Your task to perform on an android device: When is my next appointment? Image 0: 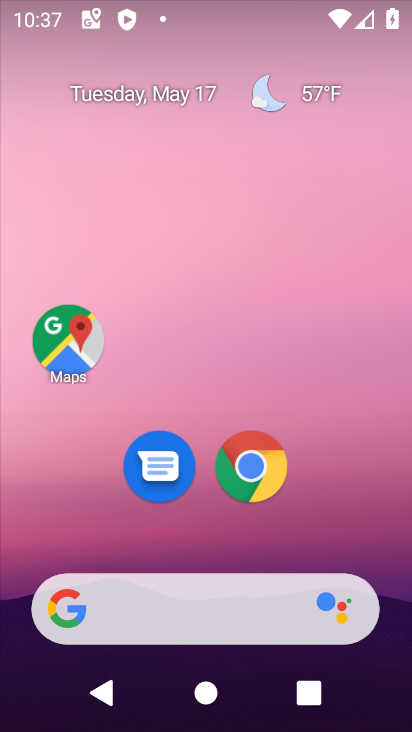
Step 0: drag from (213, 547) to (185, 5)
Your task to perform on an android device: When is my next appointment? Image 1: 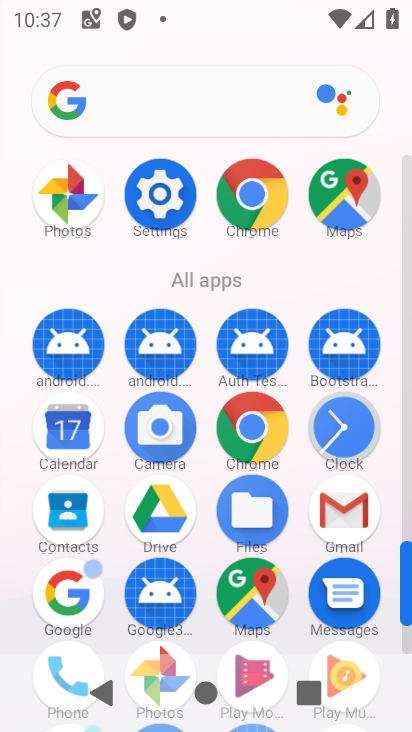
Step 1: click (35, 417)
Your task to perform on an android device: When is my next appointment? Image 2: 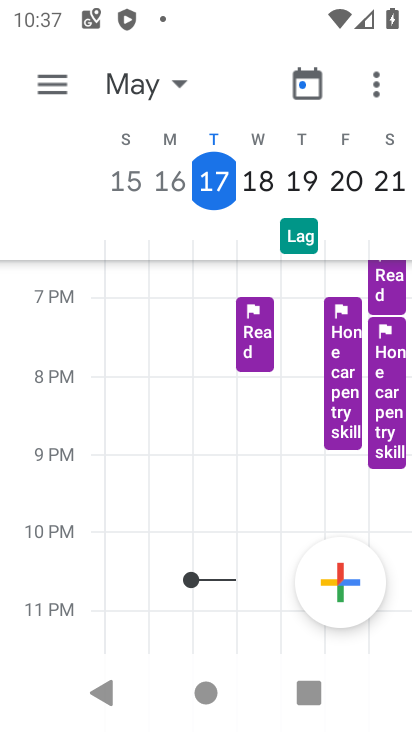
Step 2: task complete